Your task to perform on an android device: set default search engine in the chrome app Image 0: 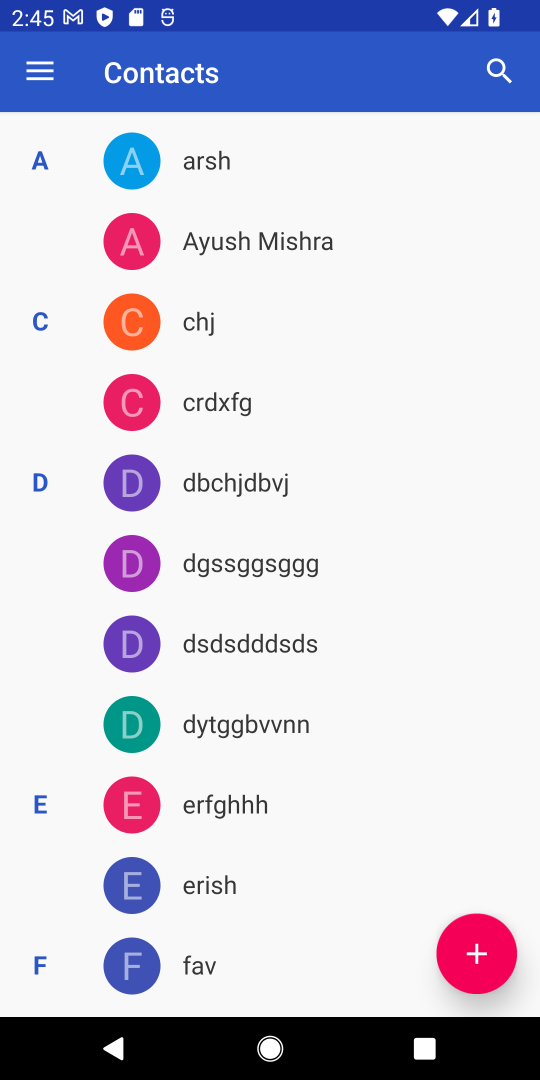
Step 0: press home button
Your task to perform on an android device: set default search engine in the chrome app Image 1: 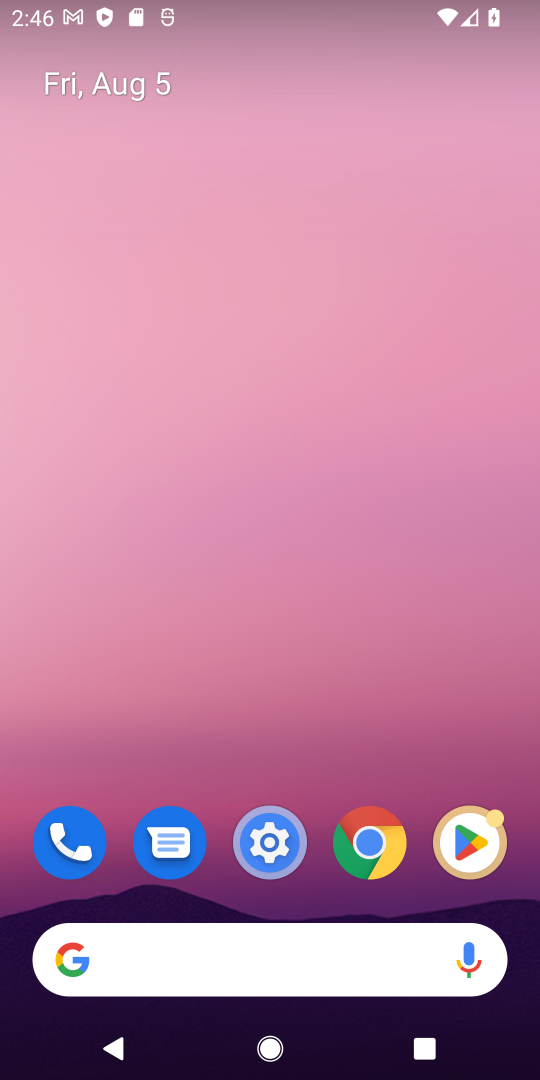
Step 1: click (383, 843)
Your task to perform on an android device: set default search engine in the chrome app Image 2: 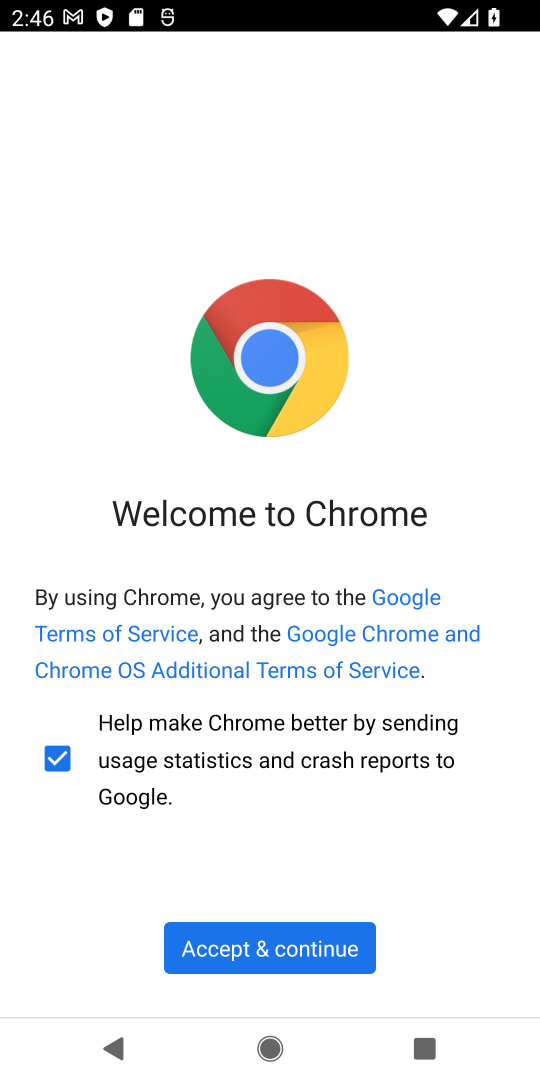
Step 2: click (320, 951)
Your task to perform on an android device: set default search engine in the chrome app Image 3: 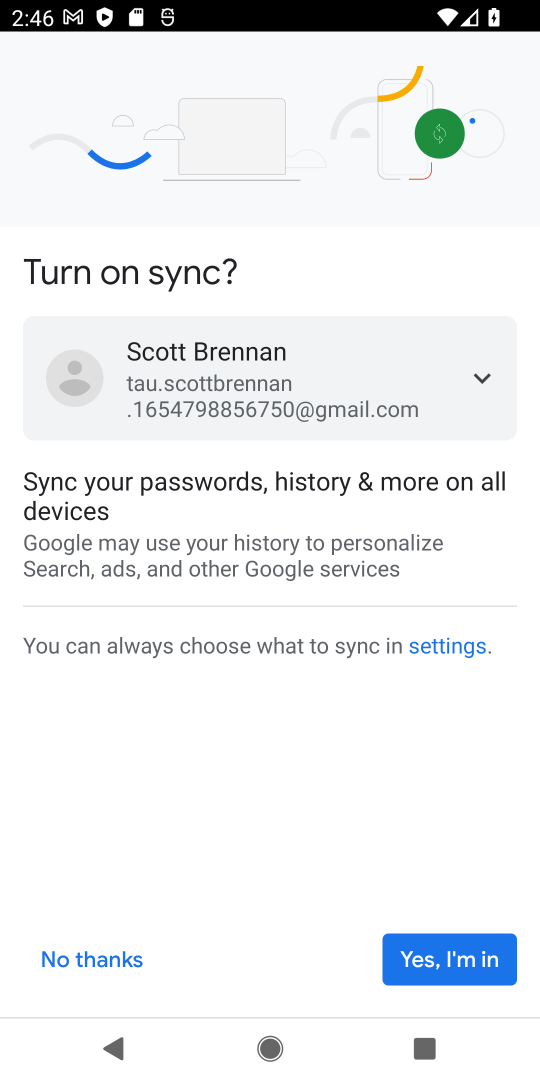
Step 3: click (433, 958)
Your task to perform on an android device: set default search engine in the chrome app Image 4: 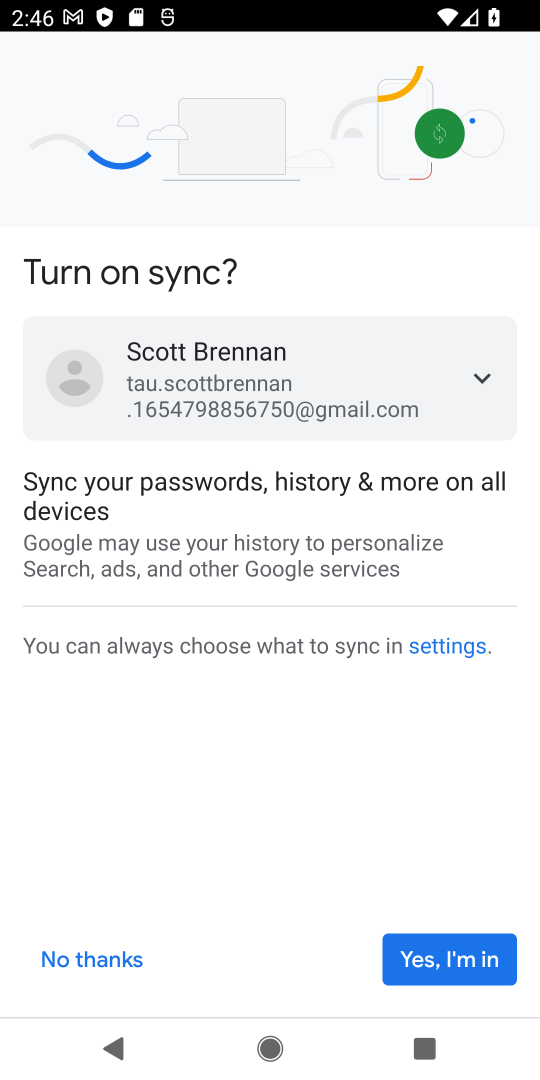
Step 4: click (433, 958)
Your task to perform on an android device: set default search engine in the chrome app Image 5: 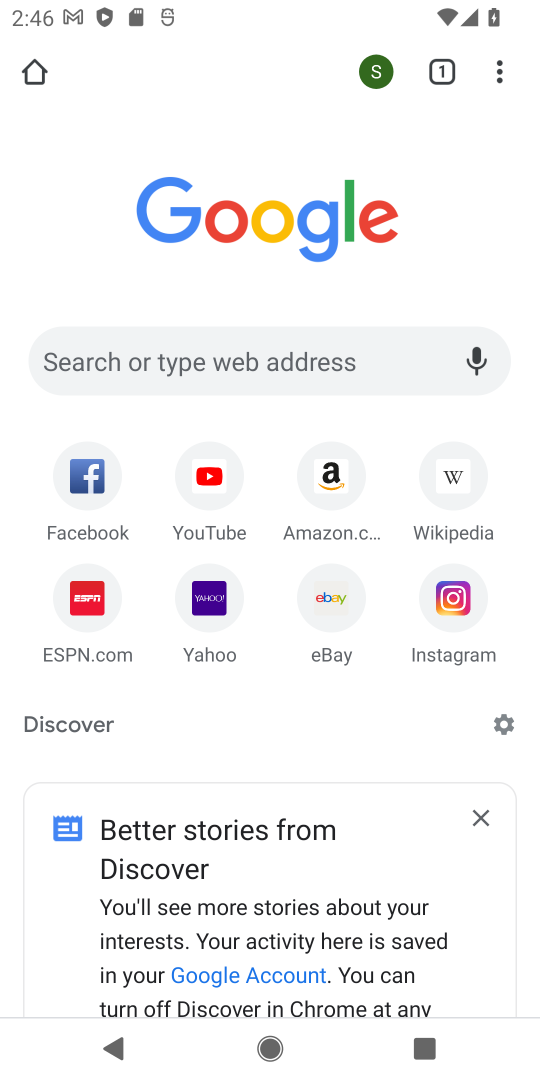
Step 5: click (499, 68)
Your task to perform on an android device: set default search engine in the chrome app Image 6: 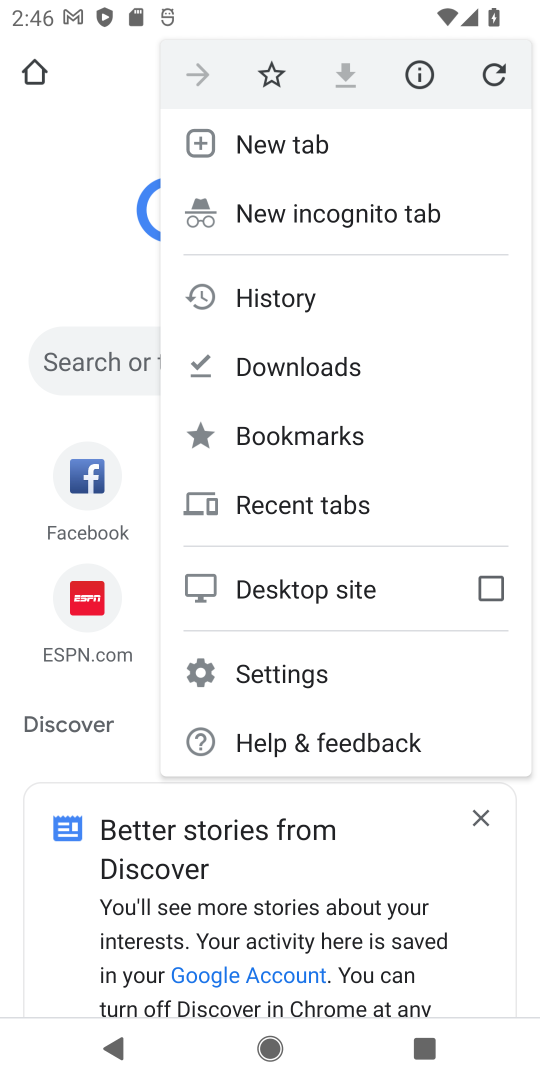
Step 6: click (320, 664)
Your task to perform on an android device: set default search engine in the chrome app Image 7: 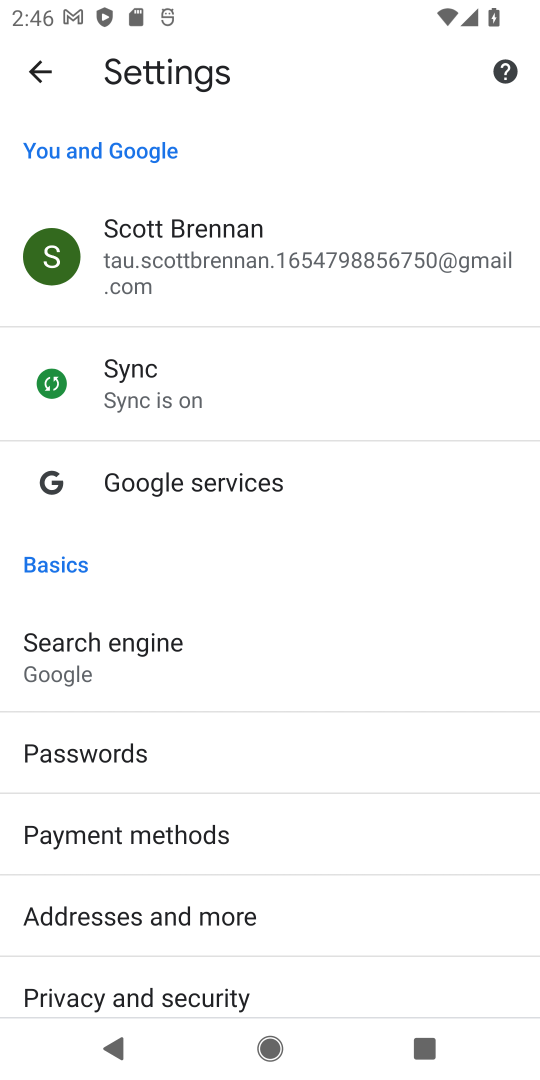
Step 7: click (153, 641)
Your task to perform on an android device: set default search engine in the chrome app Image 8: 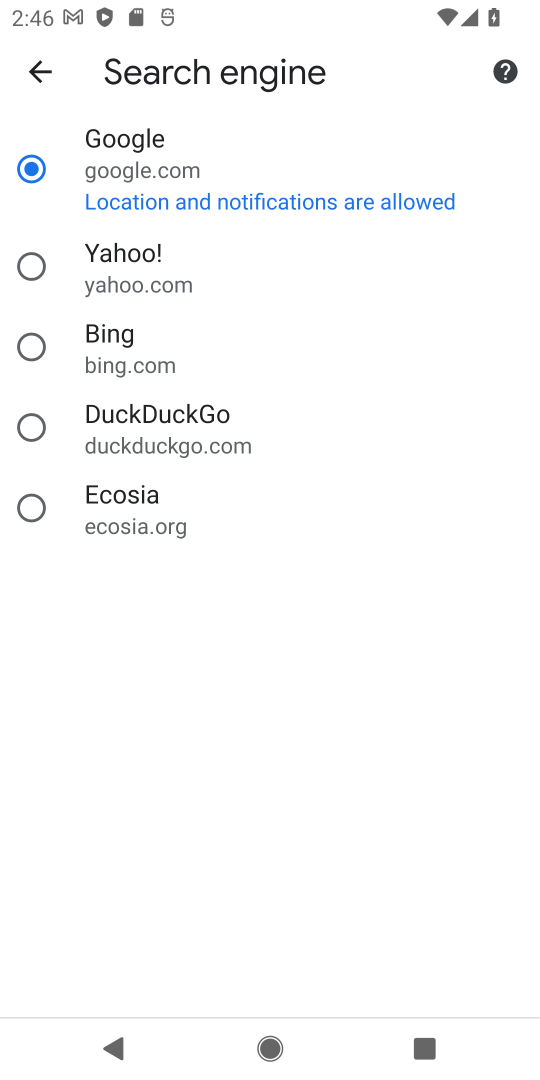
Step 8: task complete